Your task to perform on an android device: Go to Yahoo.com Image 0: 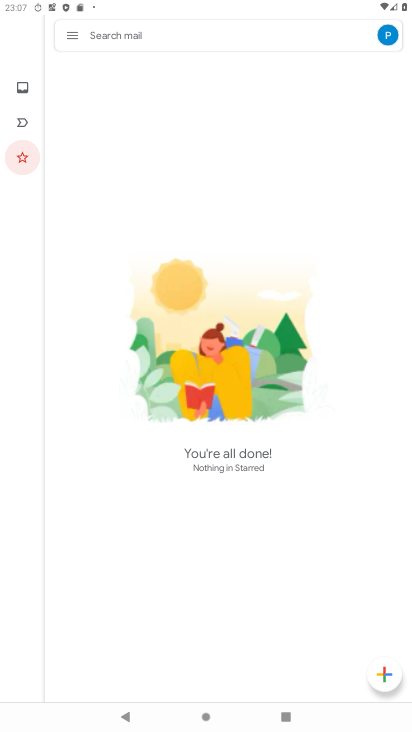
Step 0: press home button
Your task to perform on an android device: Go to Yahoo.com Image 1: 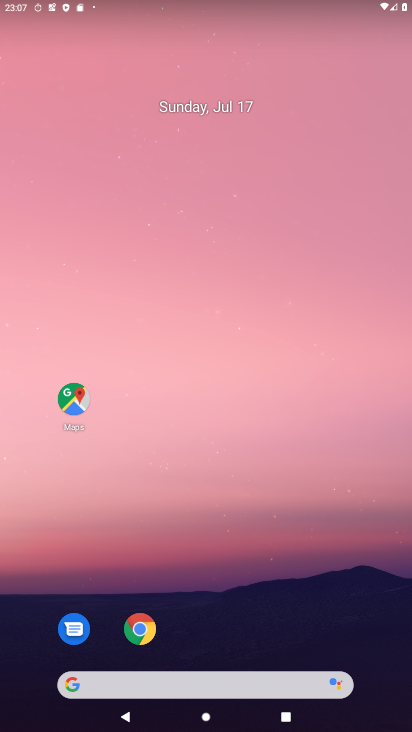
Step 1: drag from (237, 611) to (236, 132)
Your task to perform on an android device: Go to Yahoo.com Image 2: 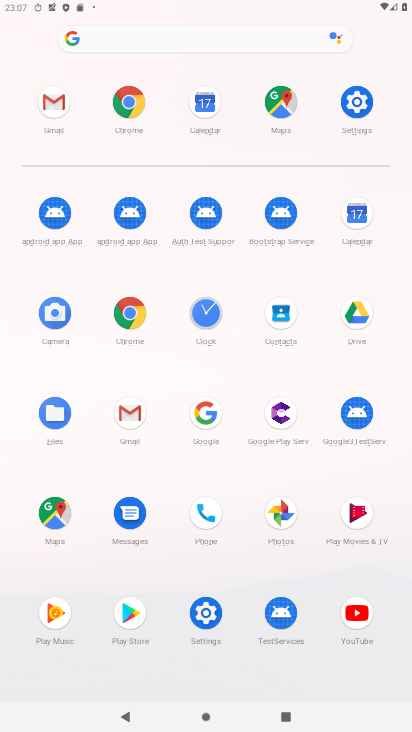
Step 2: click (128, 315)
Your task to perform on an android device: Go to Yahoo.com Image 3: 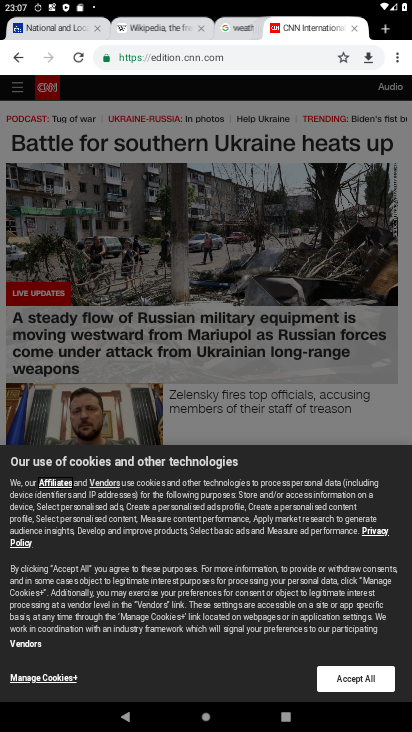
Step 3: click (128, 315)
Your task to perform on an android device: Go to Yahoo.com Image 4: 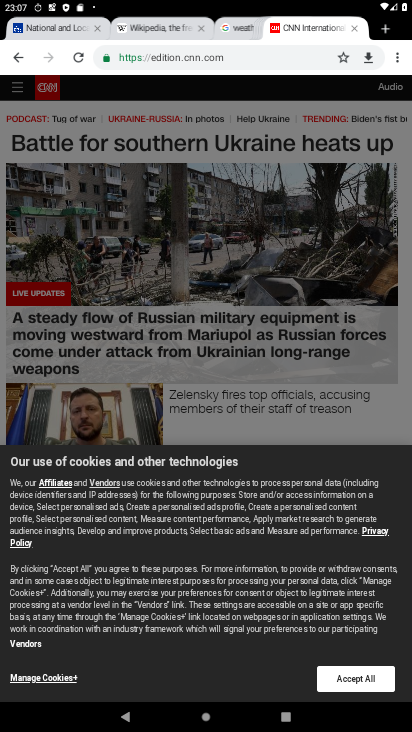
Step 4: click (398, 60)
Your task to perform on an android device: Go to Yahoo.com Image 5: 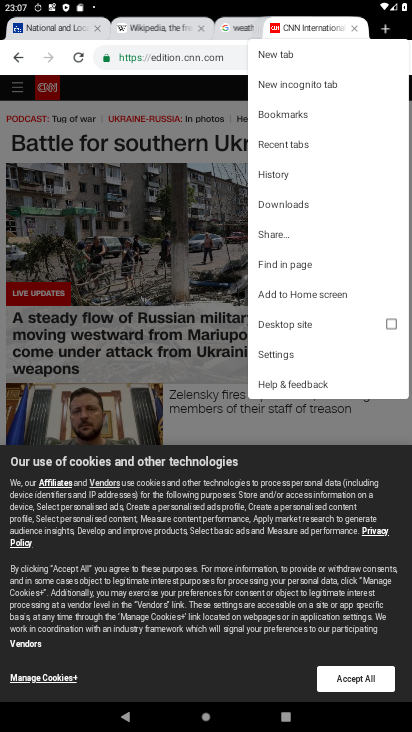
Step 5: click (271, 53)
Your task to perform on an android device: Go to Yahoo.com Image 6: 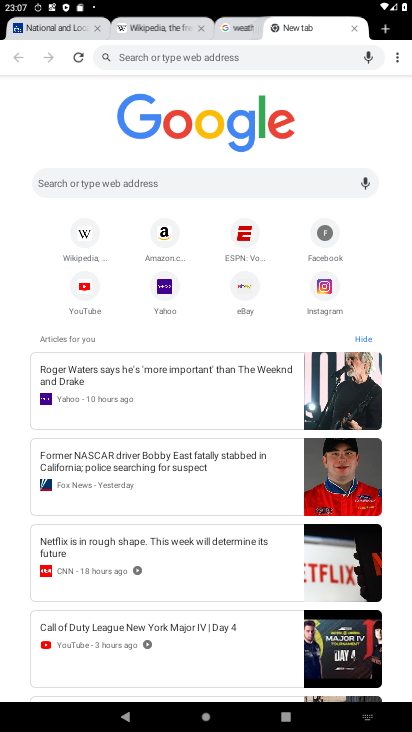
Step 6: click (162, 286)
Your task to perform on an android device: Go to Yahoo.com Image 7: 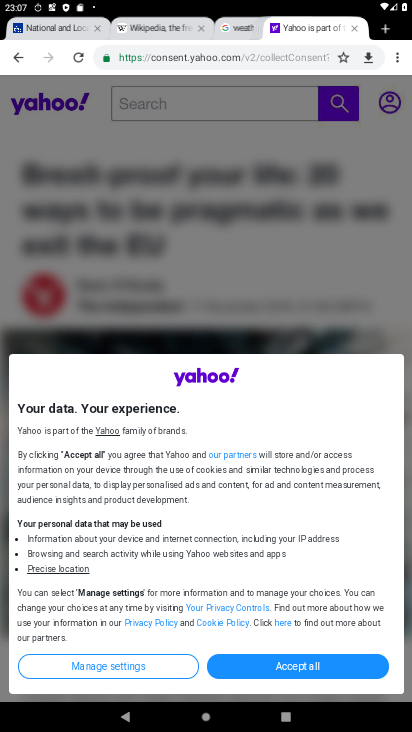
Step 7: task complete